Your task to perform on an android device: Search for dell alienware on amazon, select the first entry, and add it to the cart. Image 0: 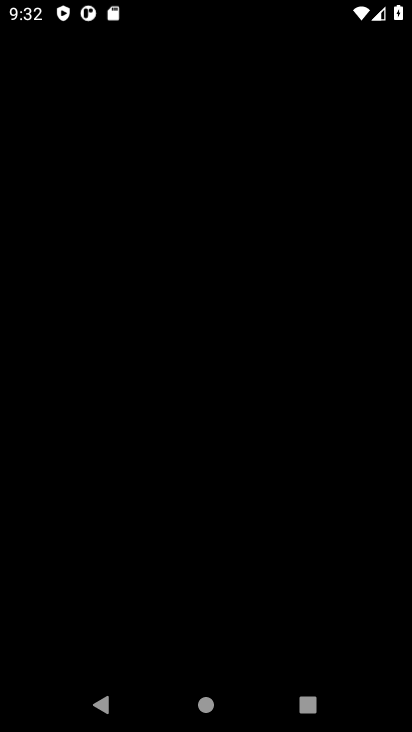
Step 0: press home button
Your task to perform on an android device: Search for dell alienware on amazon, select the first entry, and add it to the cart. Image 1: 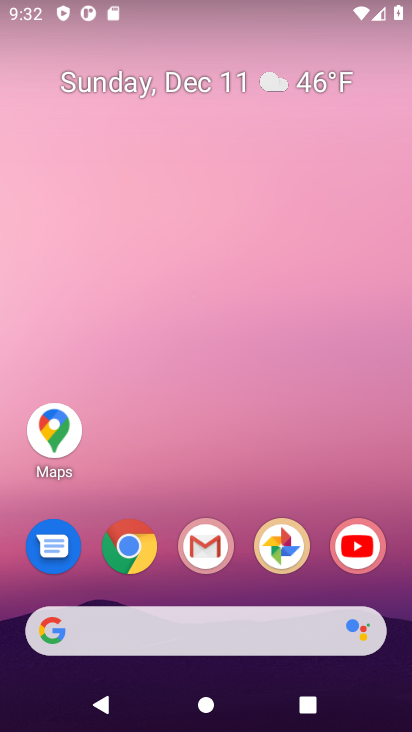
Step 1: click (127, 546)
Your task to perform on an android device: Search for dell alienware on amazon, select the first entry, and add it to the cart. Image 2: 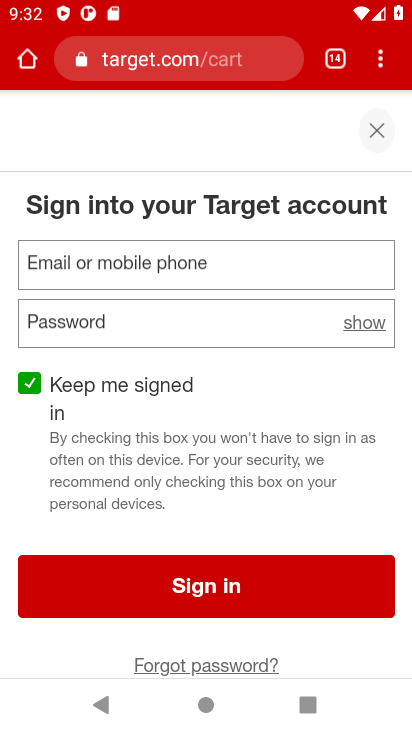
Step 2: click (189, 57)
Your task to perform on an android device: Search for dell alienware on amazon, select the first entry, and add it to the cart. Image 3: 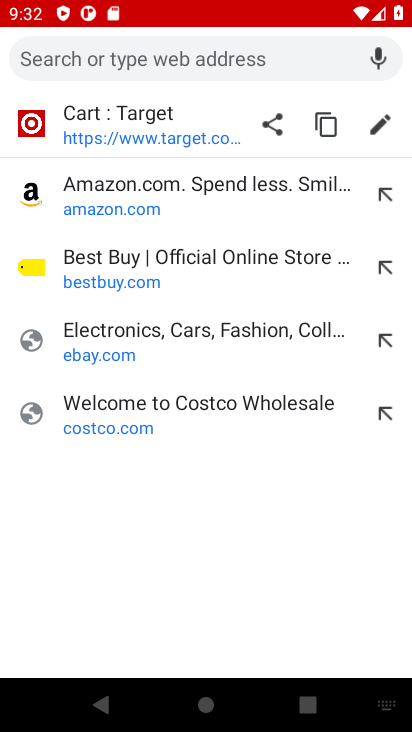
Step 3: click (101, 204)
Your task to perform on an android device: Search for dell alienware on amazon, select the first entry, and add it to the cart. Image 4: 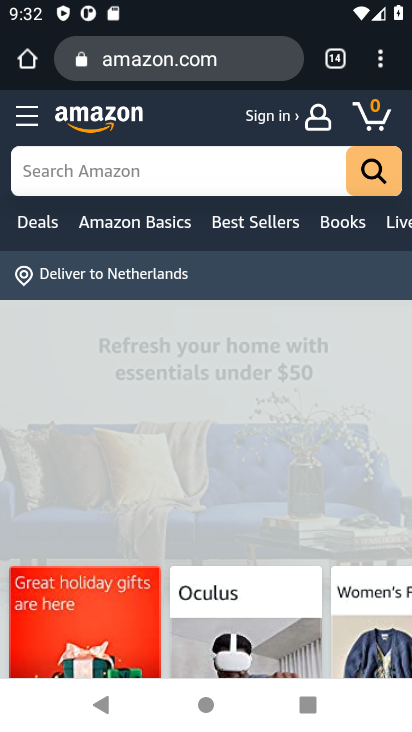
Step 4: click (40, 171)
Your task to perform on an android device: Search for dell alienware on amazon, select the first entry, and add it to the cart. Image 5: 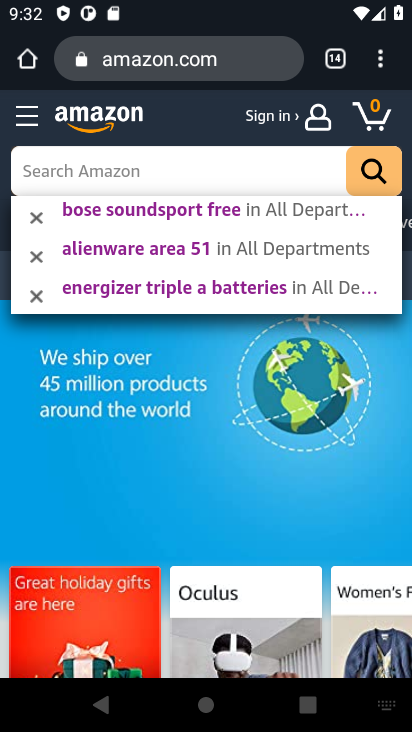
Step 5: type "dell alienware "
Your task to perform on an android device: Search for dell alienware on amazon, select the first entry, and add it to the cart. Image 6: 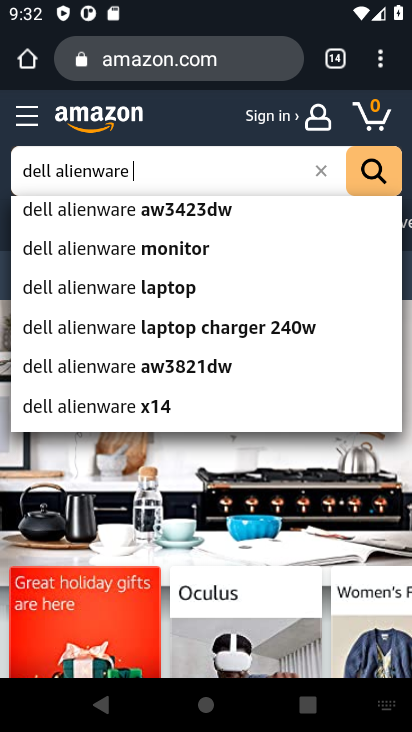
Step 6: click (368, 167)
Your task to perform on an android device: Search for dell alienware on amazon, select the first entry, and add it to the cart. Image 7: 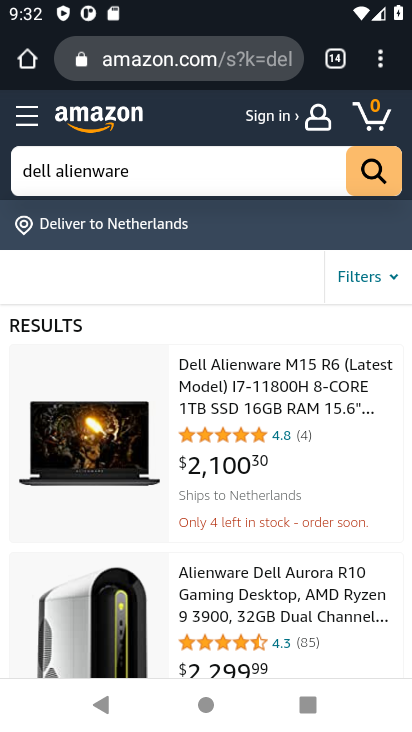
Step 7: click (242, 411)
Your task to perform on an android device: Search for dell alienware on amazon, select the first entry, and add it to the cart. Image 8: 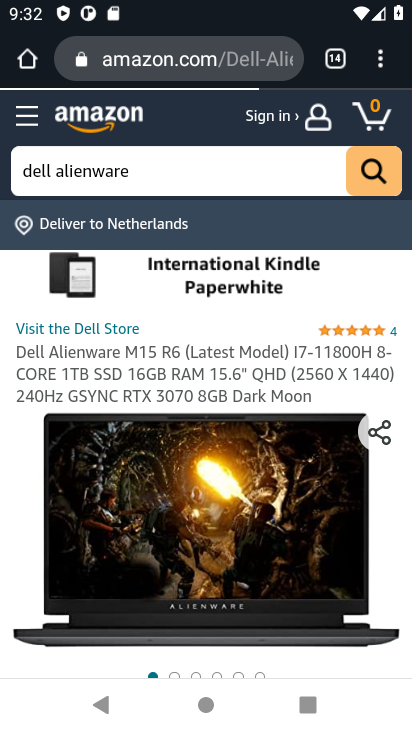
Step 8: drag from (180, 522) to (191, 130)
Your task to perform on an android device: Search for dell alienware on amazon, select the first entry, and add it to the cart. Image 9: 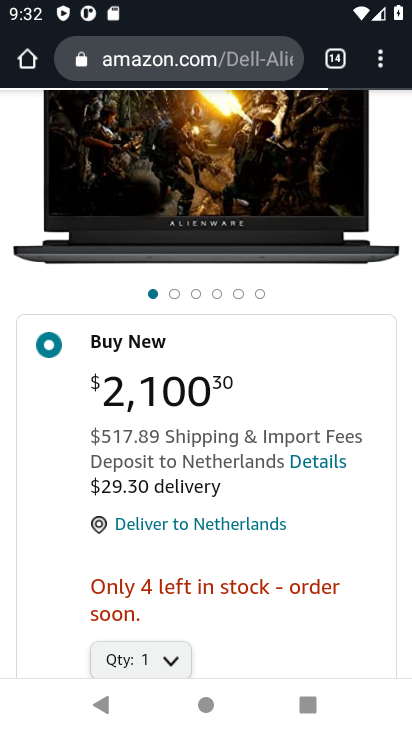
Step 9: drag from (182, 575) to (186, 132)
Your task to perform on an android device: Search for dell alienware on amazon, select the first entry, and add it to the cart. Image 10: 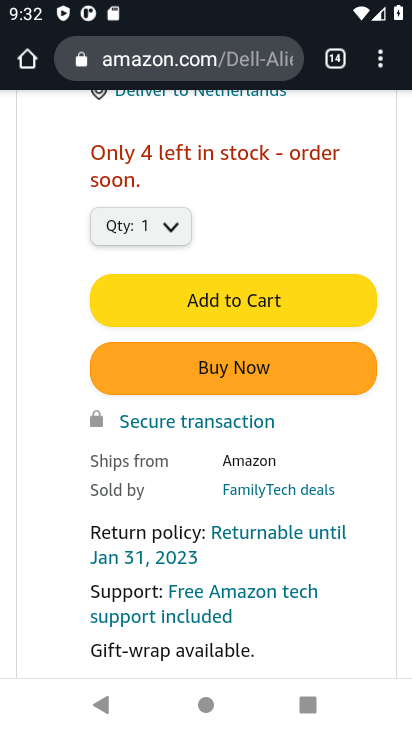
Step 10: click (212, 309)
Your task to perform on an android device: Search for dell alienware on amazon, select the first entry, and add it to the cart. Image 11: 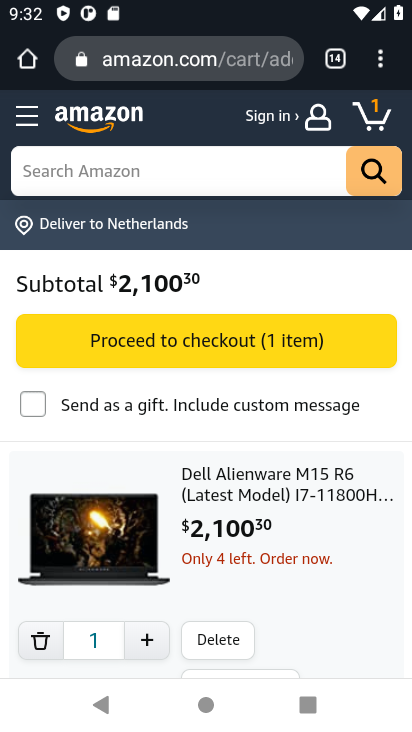
Step 11: task complete